Your task to perform on an android device: Search for alienware area 51 on walmart.com, select the first entry, add it to the cart, then select checkout. Image 0: 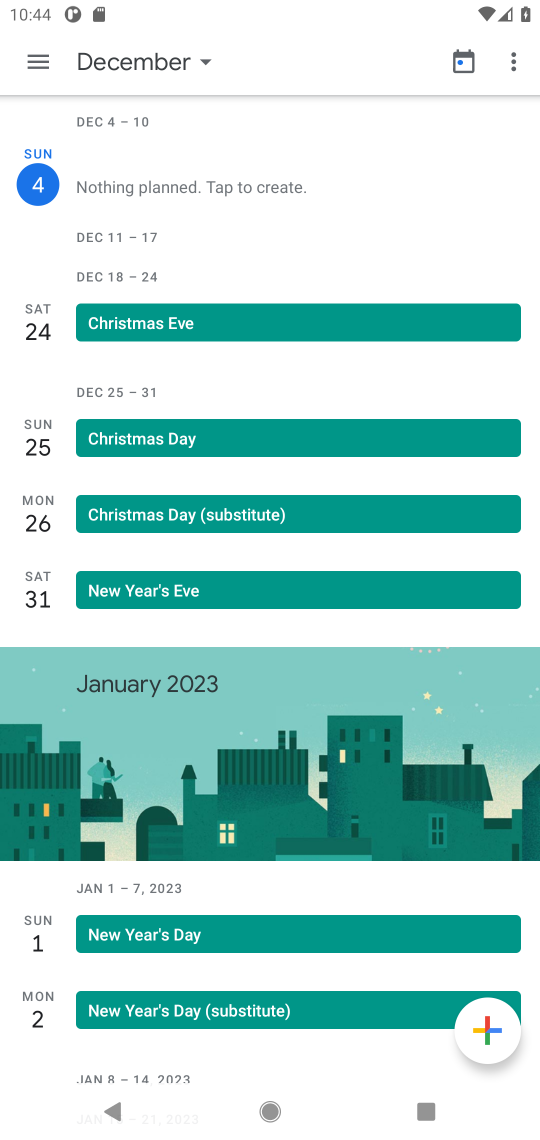
Step 0: press home button
Your task to perform on an android device: Search for alienware area 51 on walmart.com, select the first entry, add it to the cart, then select checkout. Image 1: 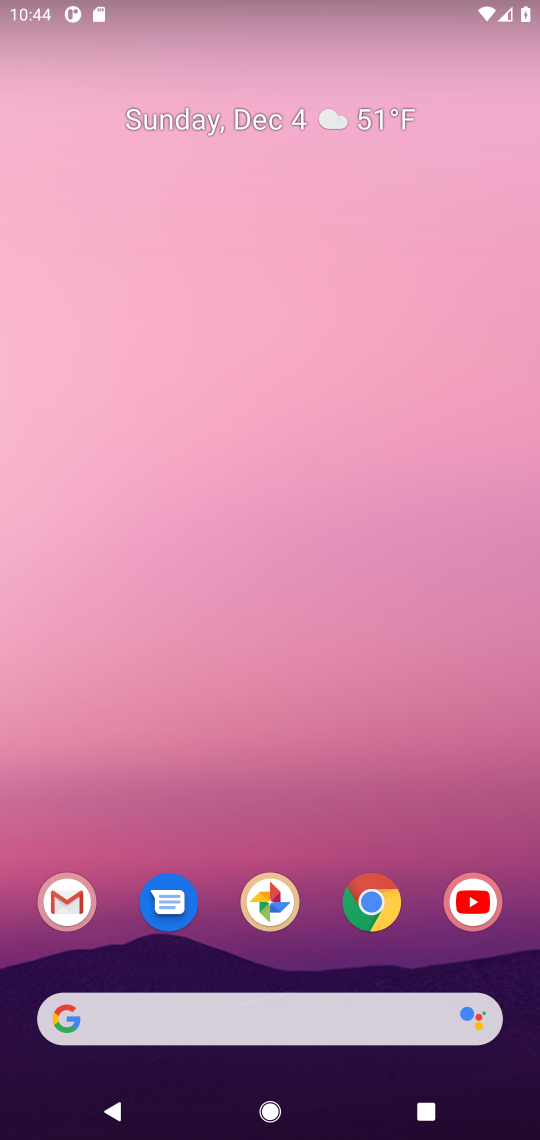
Step 1: click (374, 894)
Your task to perform on an android device: Search for alienware area 51 on walmart.com, select the first entry, add it to the cart, then select checkout. Image 2: 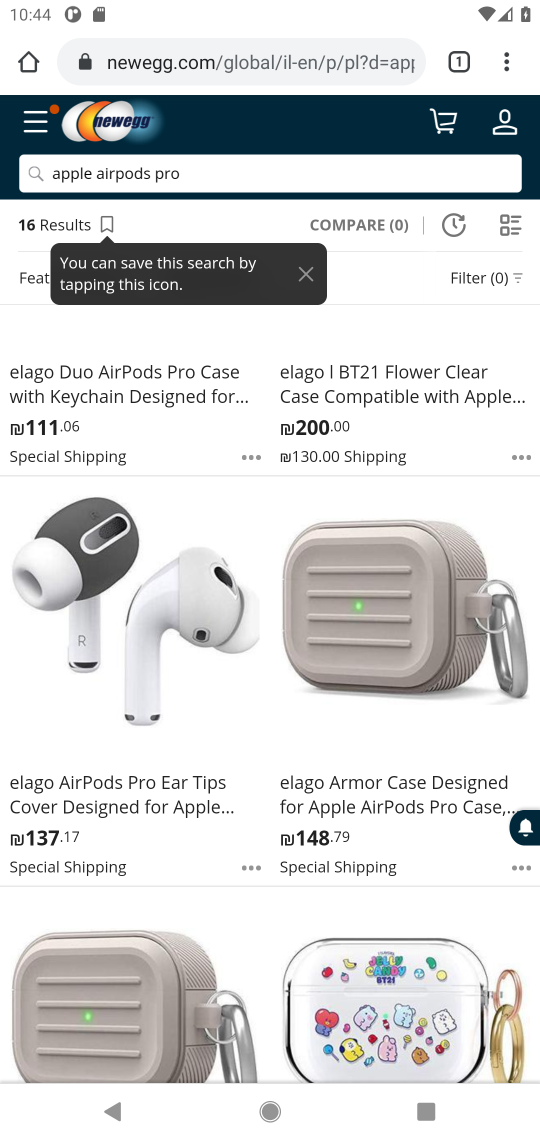
Step 2: click (262, 70)
Your task to perform on an android device: Search for alienware area 51 on walmart.com, select the first entry, add it to the cart, then select checkout. Image 3: 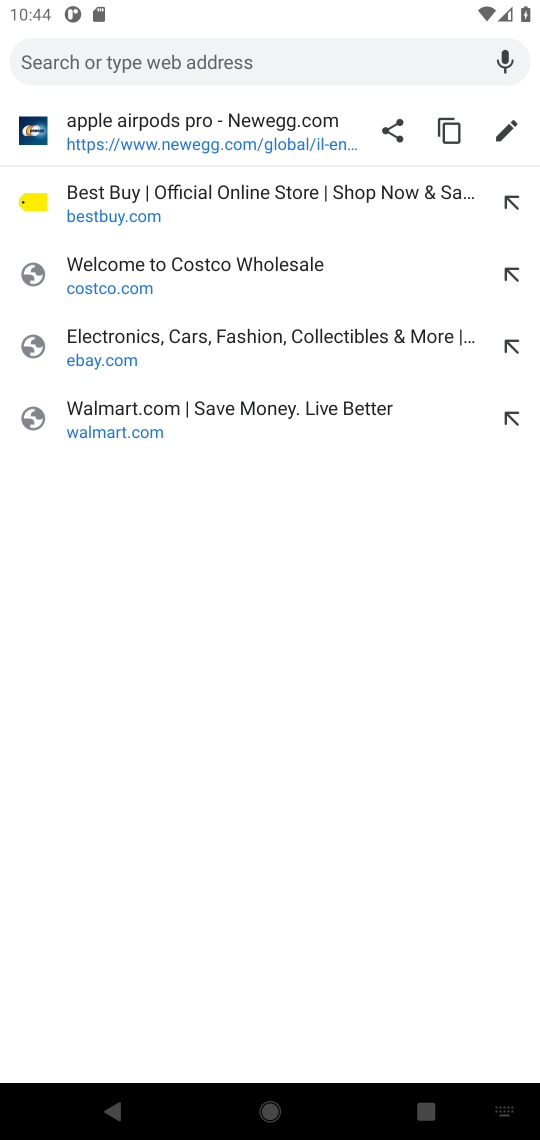
Step 3: click (211, 430)
Your task to perform on an android device: Search for alienware area 51 on walmart.com, select the first entry, add it to the cart, then select checkout. Image 4: 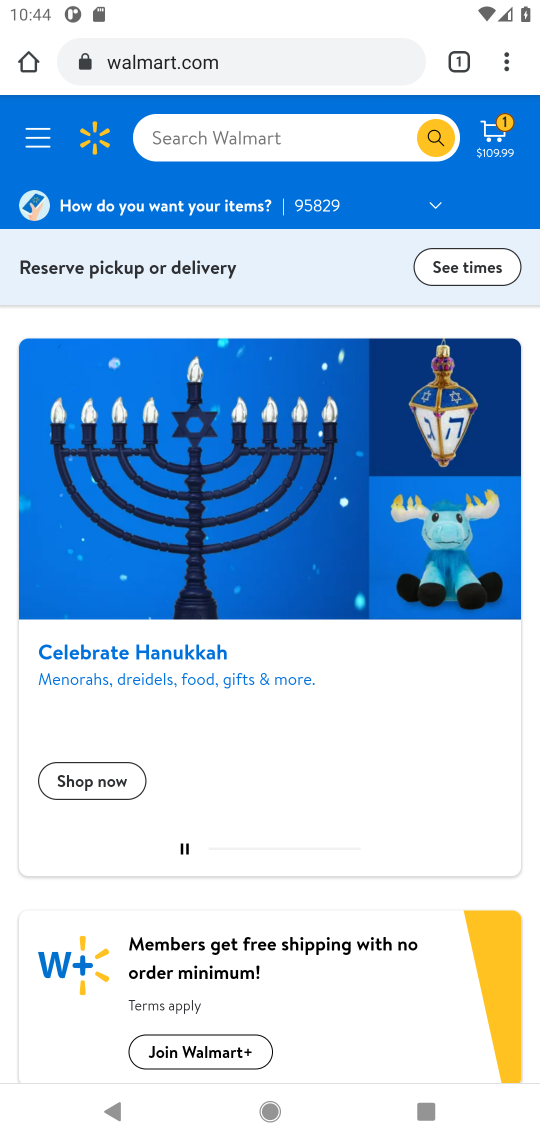
Step 4: click (259, 126)
Your task to perform on an android device: Search for alienware area 51 on walmart.com, select the first entry, add it to the cart, then select checkout. Image 5: 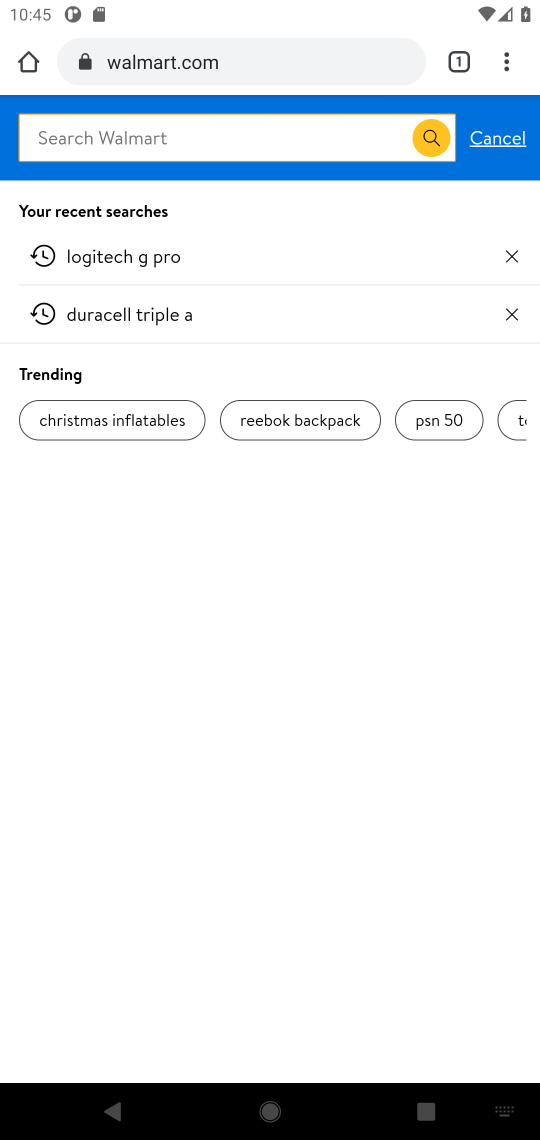
Step 5: type "alienware area 51 "
Your task to perform on an android device: Search for alienware area 51 on walmart.com, select the first entry, add it to the cart, then select checkout. Image 6: 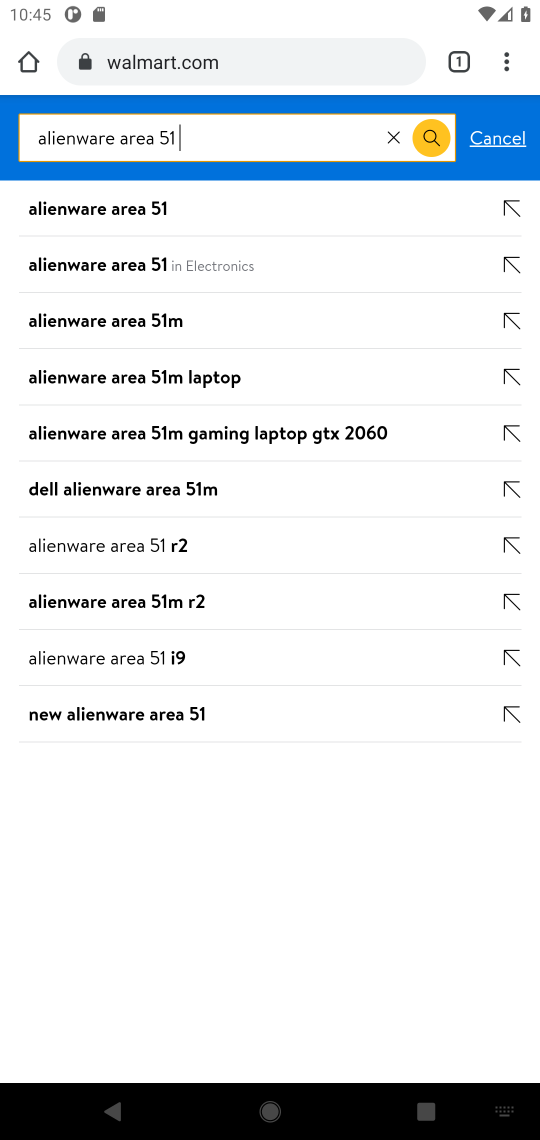
Step 6: click (130, 200)
Your task to perform on an android device: Search for alienware area 51 on walmart.com, select the first entry, add it to the cart, then select checkout. Image 7: 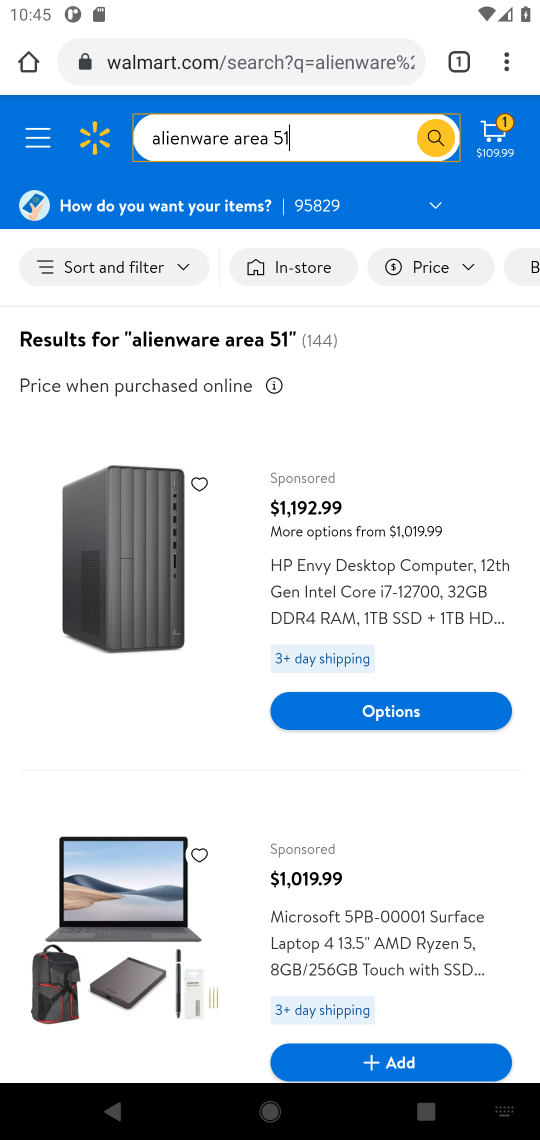
Step 7: task complete